Your task to perform on an android device: Go to CNN.com Image 0: 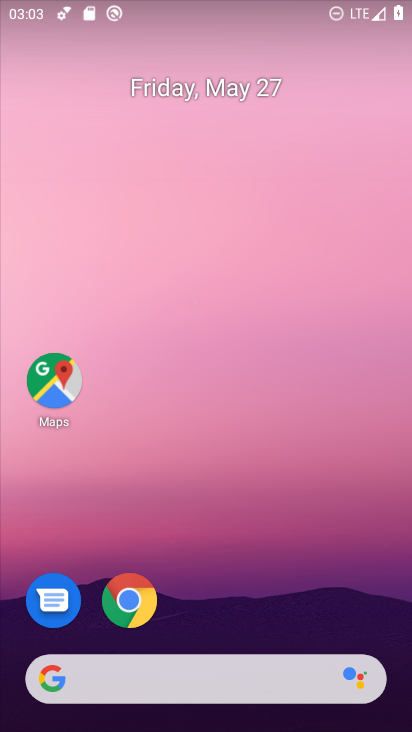
Step 0: click (122, 601)
Your task to perform on an android device: Go to CNN.com Image 1: 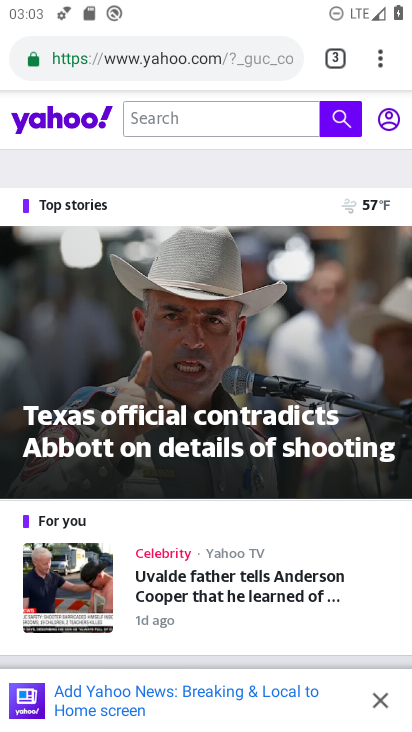
Step 1: click (382, 65)
Your task to perform on an android device: Go to CNN.com Image 2: 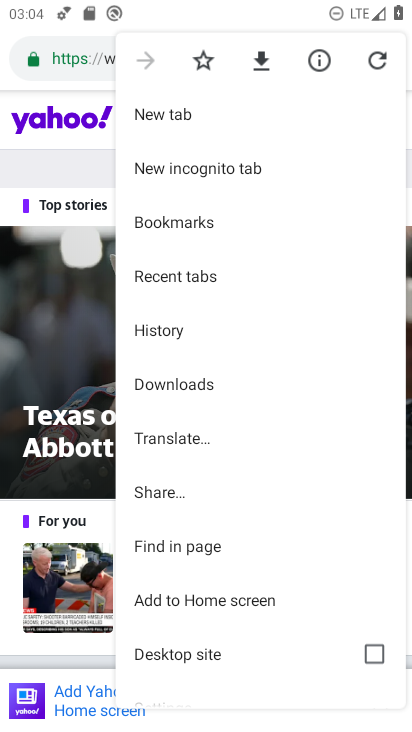
Step 2: click (157, 113)
Your task to perform on an android device: Go to CNN.com Image 3: 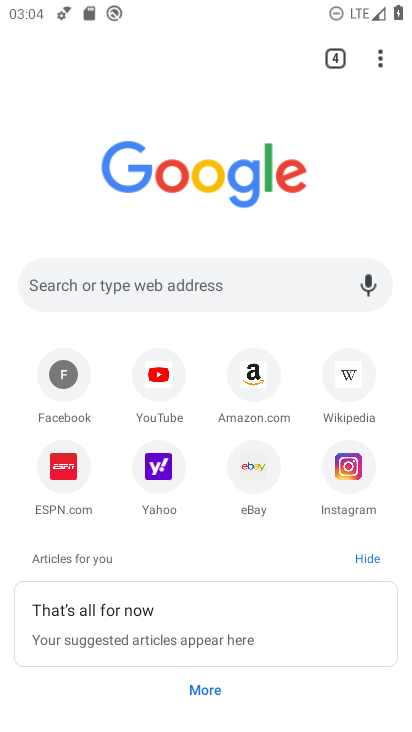
Step 3: click (231, 279)
Your task to perform on an android device: Go to CNN.com Image 4: 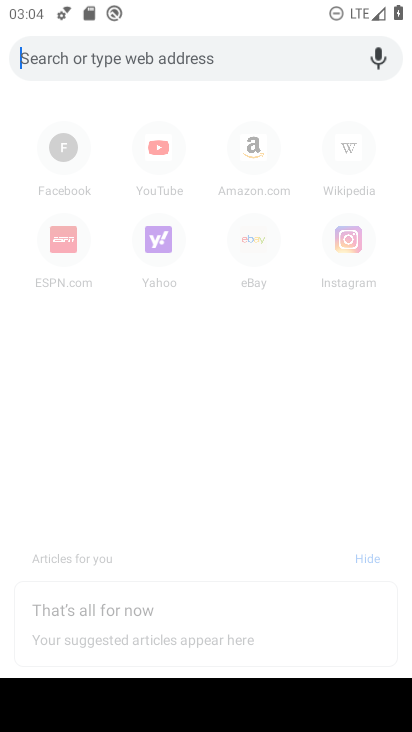
Step 4: type "CNN.com"
Your task to perform on an android device: Go to CNN.com Image 5: 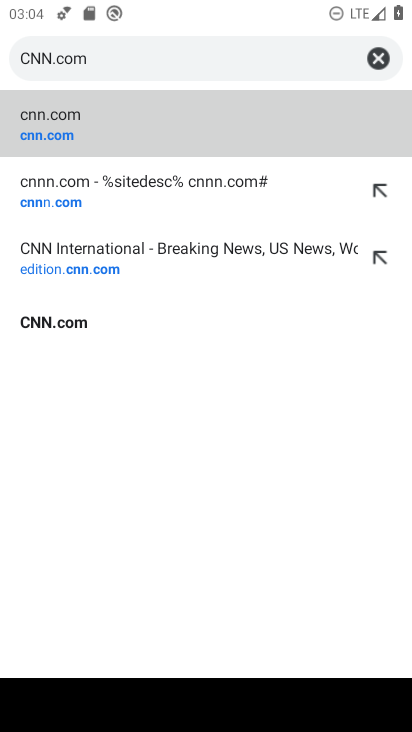
Step 5: click (107, 110)
Your task to perform on an android device: Go to CNN.com Image 6: 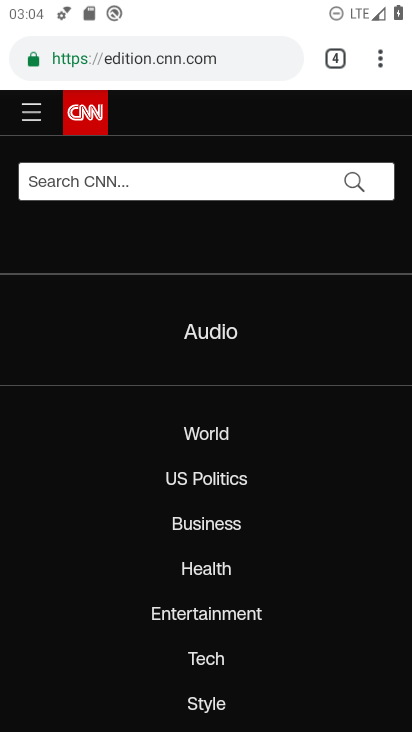
Step 6: task complete